Your task to perform on an android device: add a contact Image 0: 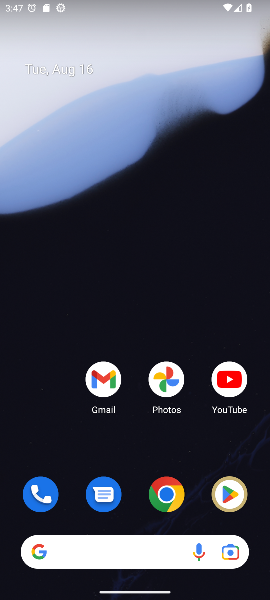
Step 0: drag from (144, 520) to (262, 318)
Your task to perform on an android device: add a contact Image 1: 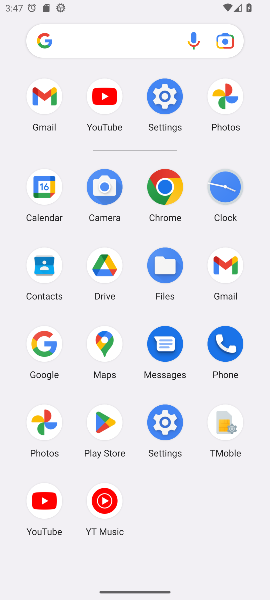
Step 1: click (225, 338)
Your task to perform on an android device: add a contact Image 2: 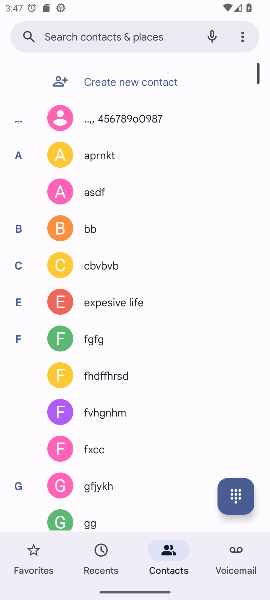
Step 2: click (130, 81)
Your task to perform on an android device: add a contact Image 3: 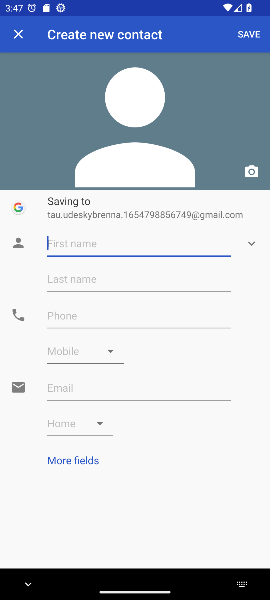
Step 3: type "pisode"
Your task to perform on an android device: add a contact Image 4: 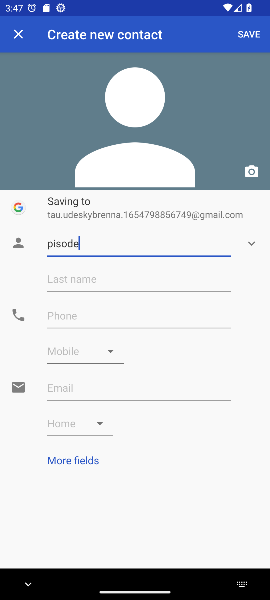
Step 4: type ""
Your task to perform on an android device: add a contact Image 5: 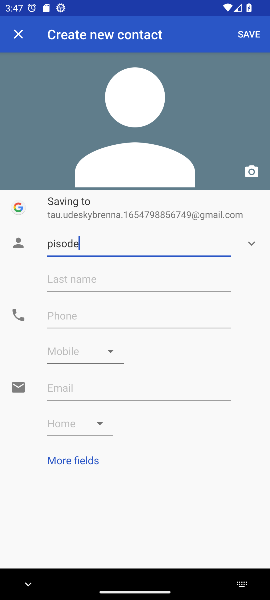
Step 5: click (233, 38)
Your task to perform on an android device: add a contact Image 6: 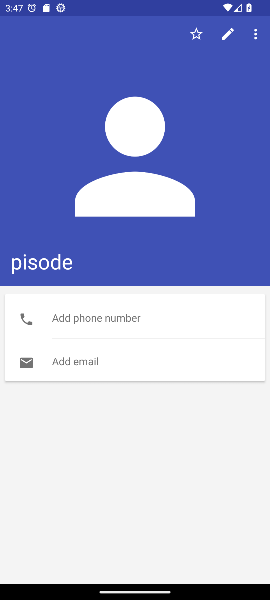
Step 6: task complete